Your task to perform on an android device: open a bookmark in the chrome app Image 0: 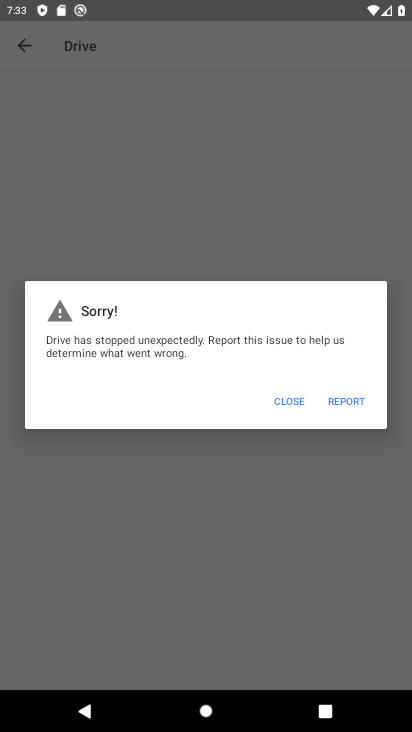
Step 0: press home button
Your task to perform on an android device: open a bookmark in the chrome app Image 1: 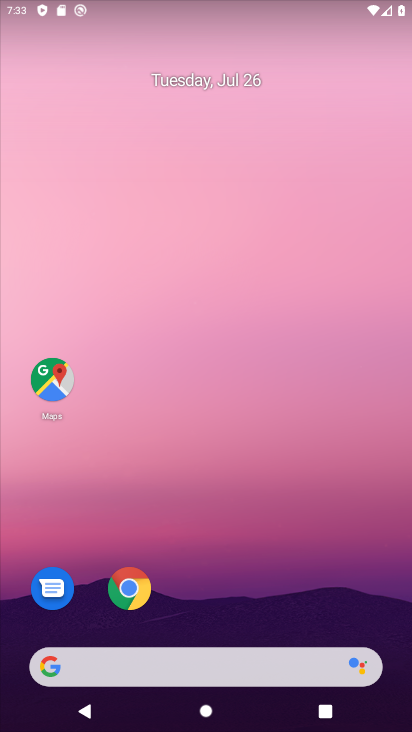
Step 1: drag from (250, 416) to (250, 121)
Your task to perform on an android device: open a bookmark in the chrome app Image 2: 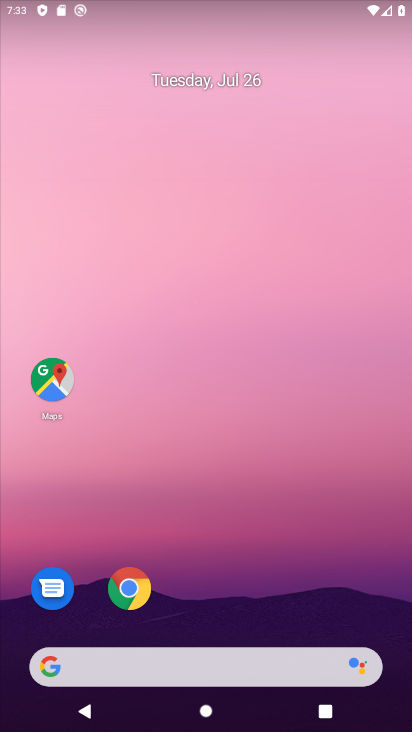
Step 2: drag from (271, 426) to (245, 68)
Your task to perform on an android device: open a bookmark in the chrome app Image 3: 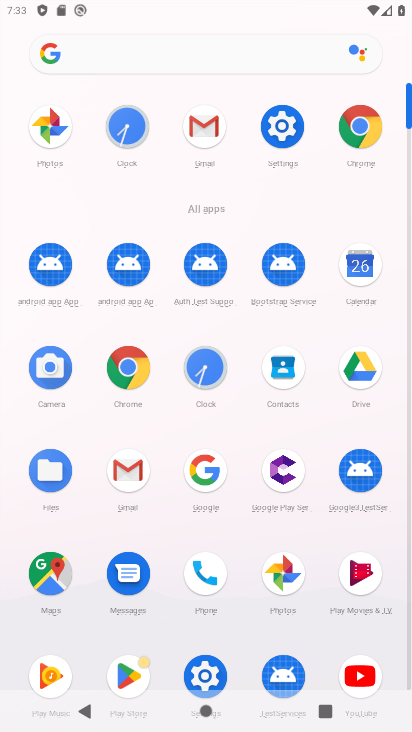
Step 3: click (118, 358)
Your task to perform on an android device: open a bookmark in the chrome app Image 4: 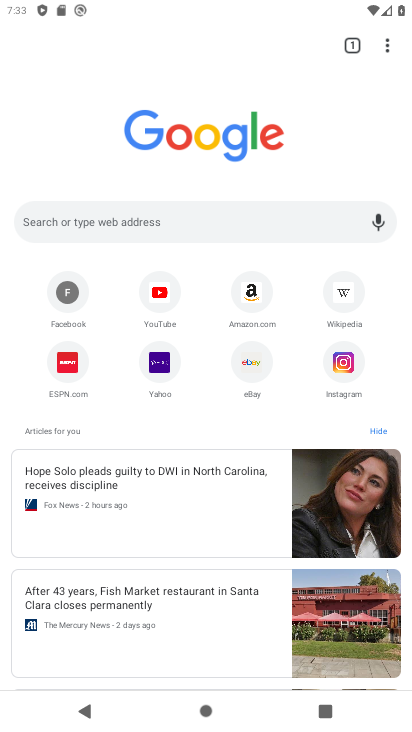
Step 4: click (388, 45)
Your task to perform on an android device: open a bookmark in the chrome app Image 5: 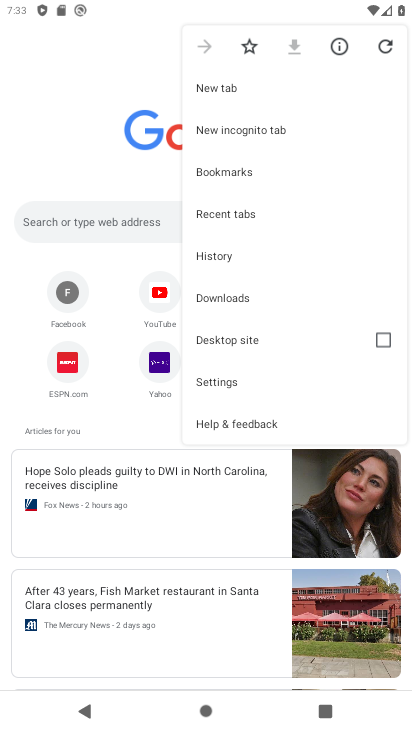
Step 5: click (246, 176)
Your task to perform on an android device: open a bookmark in the chrome app Image 6: 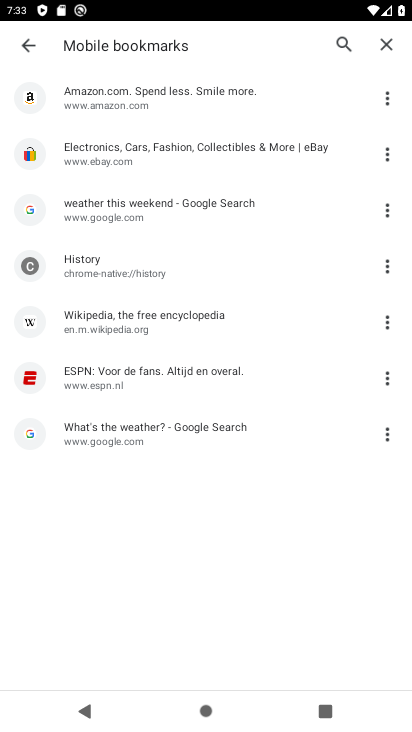
Step 6: task complete